Your task to perform on an android device: toggle sleep mode Image 0: 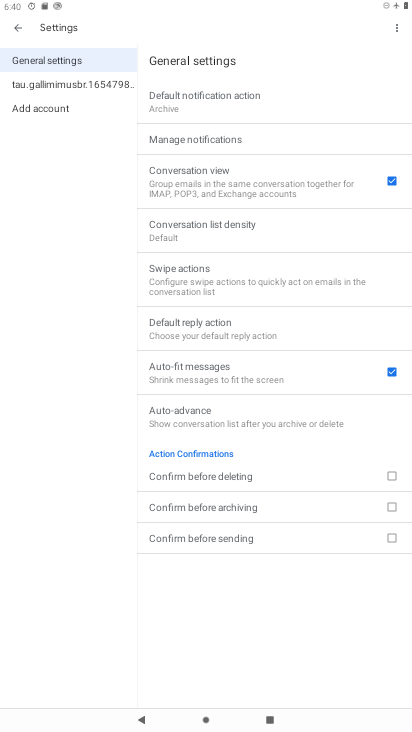
Step 0: press home button
Your task to perform on an android device: toggle sleep mode Image 1: 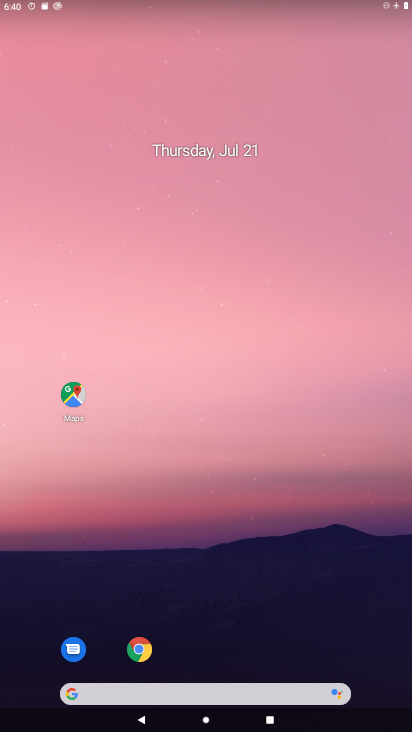
Step 1: drag from (298, 654) to (206, 63)
Your task to perform on an android device: toggle sleep mode Image 2: 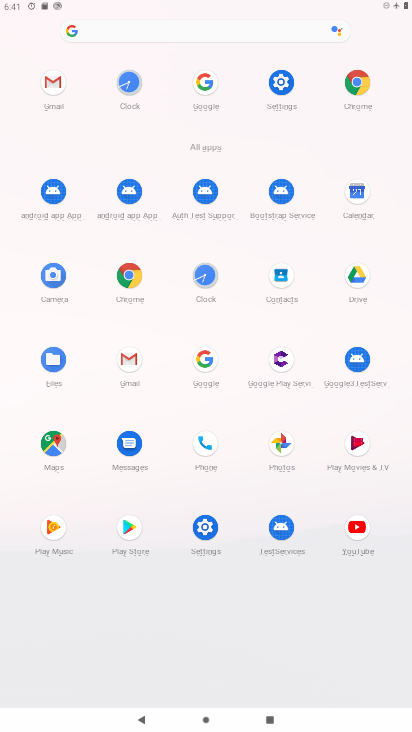
Step 2: click (209, 534)
Your task to perform on an android device: toggle sleep mode Image 3: 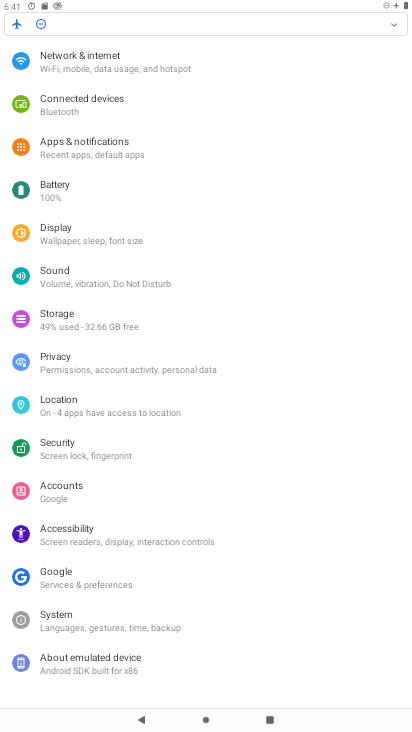
Step 3: task complete